Your task to perform on an android device: change alarm snooze length Image 0: 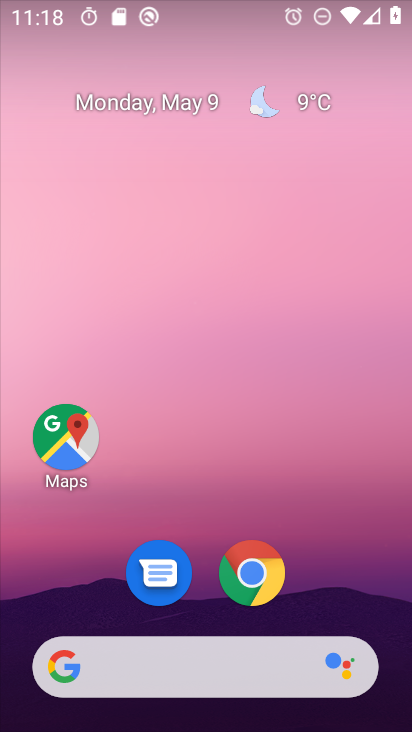
Step 0: drag from (330, 537) to (300, 110)
Your task to perform on an android device: change alarm snooze length Image 1: 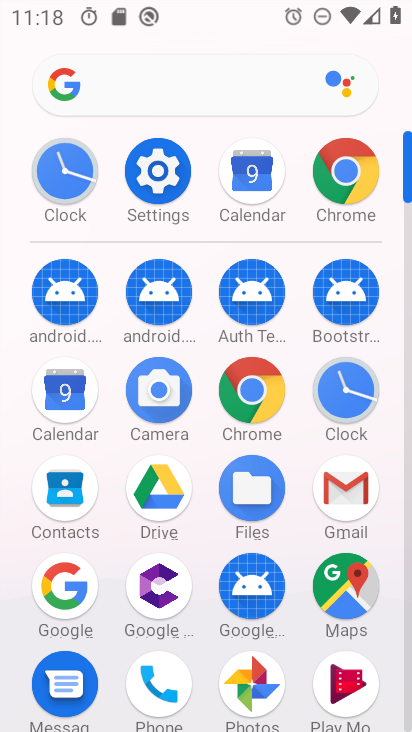
Step 1: click (354, 391)
Your task to perform on an android device: change alarm snooze length Image 2: 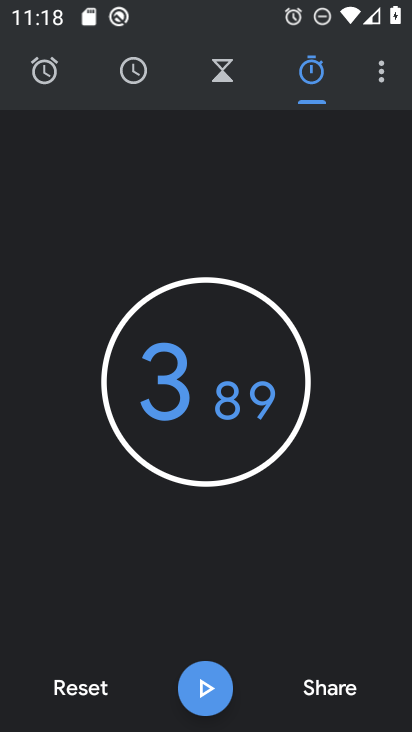
Step 2: click (380, 61)
Your task to perform on an android device: change alarm snooze length Image 3: 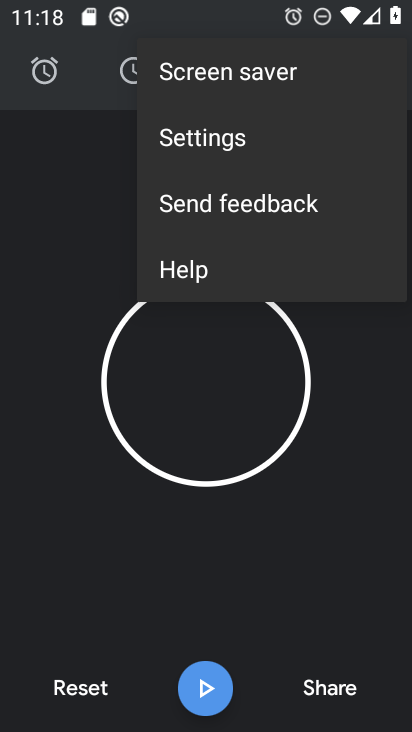
Step 3: click (265, 152)
Your task to perform on an android device: change alarm snooze length Image 4: 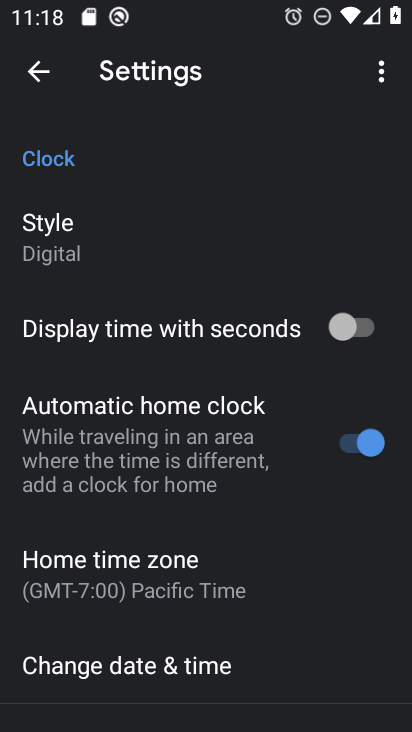
Step 4: drag from (172, 554) to (325, 48)
Your task to perform on an android device: change alarm snooze length Image 5: 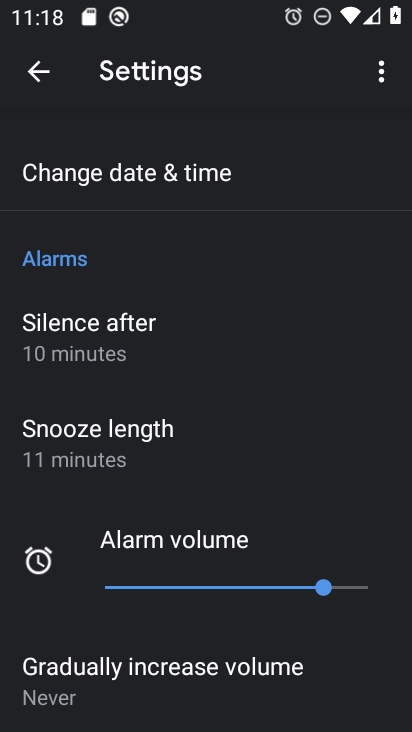
Step 5: click (120, 444)
Your task to perform on an android device: change alarm snooze length Image 6: 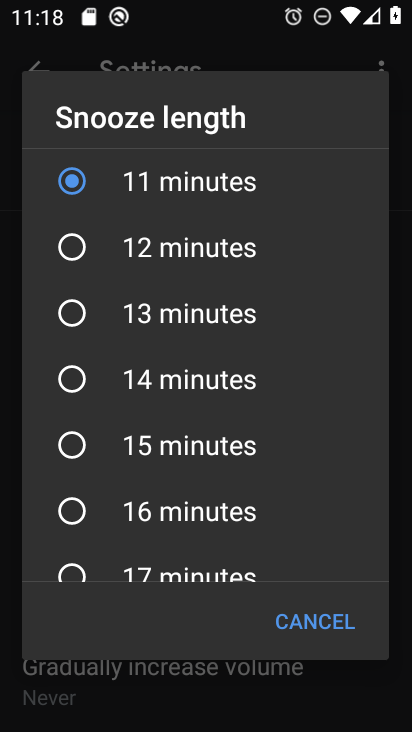
Step 6: click (165, 246)
Your task to perform on an android device: change alarm snooze length Image 7: 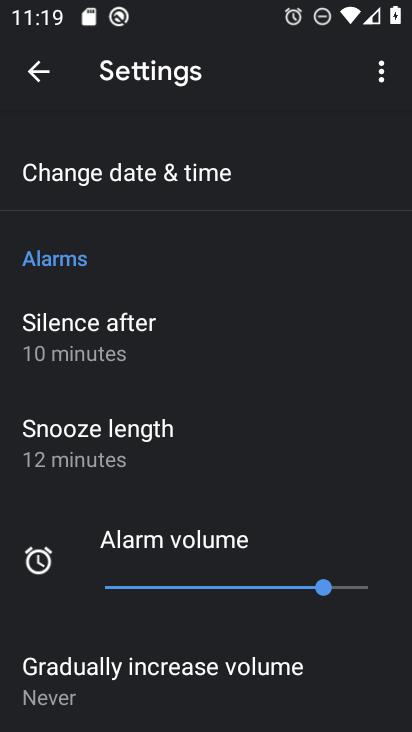
Step 7: task complete